Your task to perform on an android device: Open calendar and show me the third week of next month Image 0: 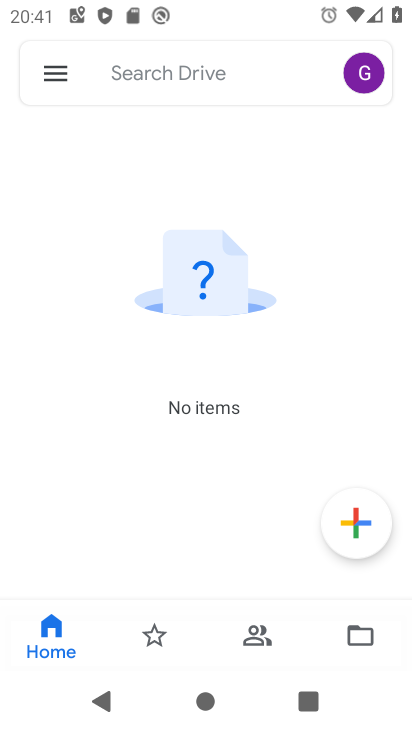
Step 0: press home button
Your task to perform on an android device: Open calendar and show me the third week of next month Image 1: 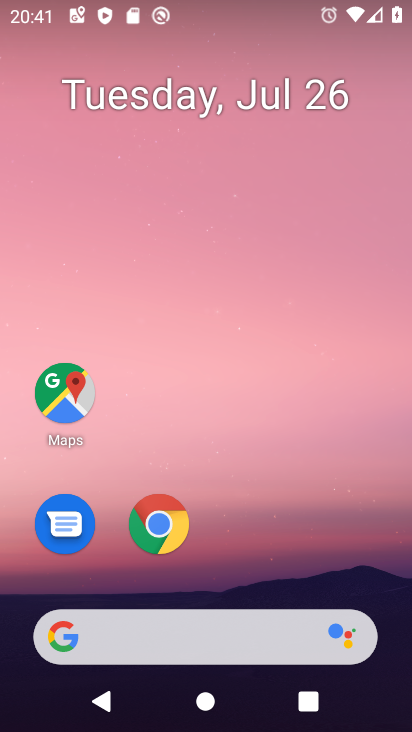
Step 1: drag from (278, 516) to (299, 0)
Your task to perform on an android device: Open calendar and show me the third week of next month Image 2: 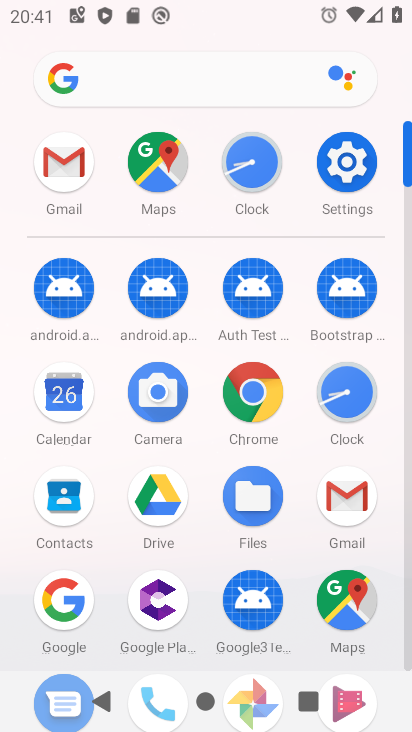
Step 2: click (72, 390)
Your task to perform on an android device: Open calendar and show me the third week of next month Image 3: 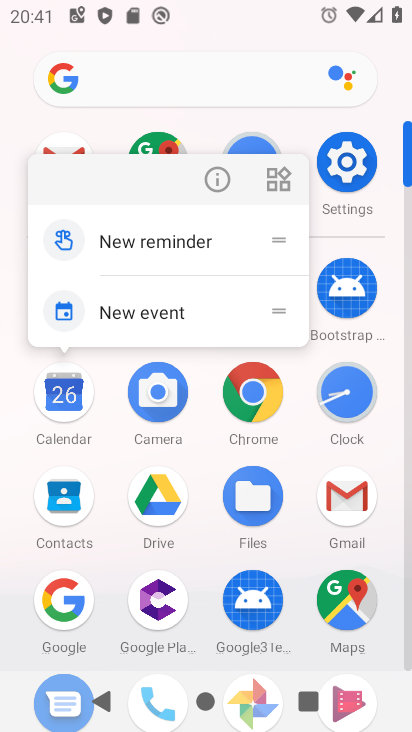
Step 3: click (72, 390)
Your task to perform on an android device: Open calendar and show me the third week of next month Image 4: 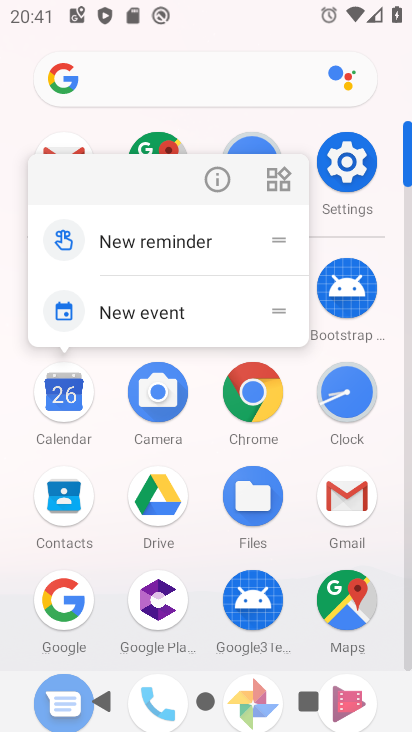
Step 4: click (66, 395)
Your task to perform on an android device: Open calendar and show me the third week of next month Image 5: 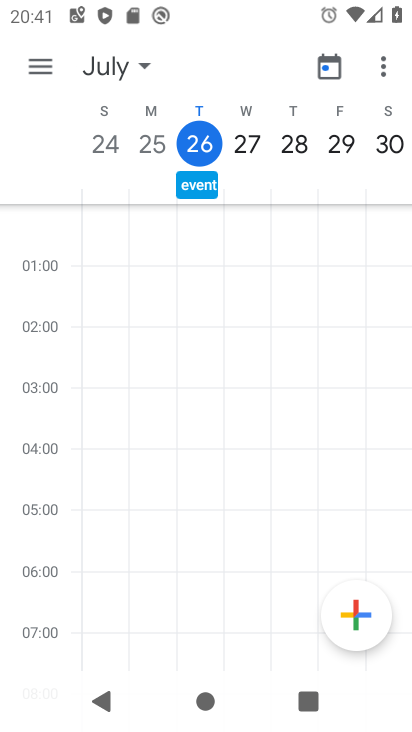
Step 5: task complete